Your task to perform on an android device: What's the weather going to be tomorrow? Image 0: 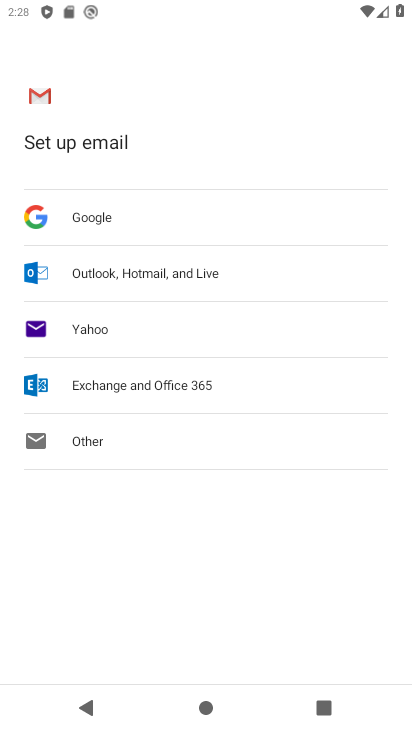
Step 0: press home button
Your task to perform on an android device: What's the weather going to be tomorrow? Image 1: 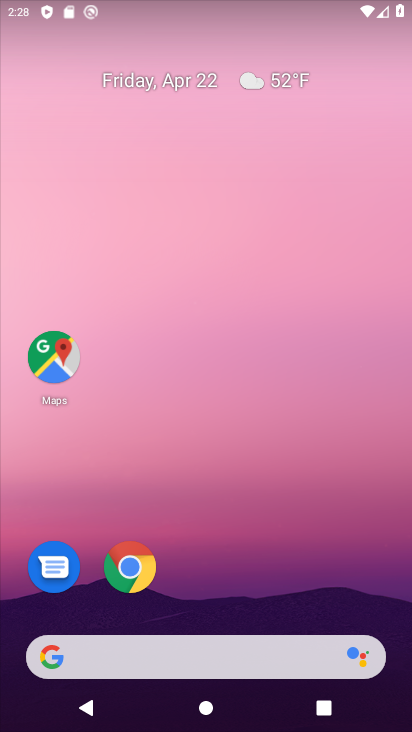
Step 1: drag from (229, 574) to (204, 723)
Your task to perform on an android device: What's the weather going to be tomorrow? Image 2: 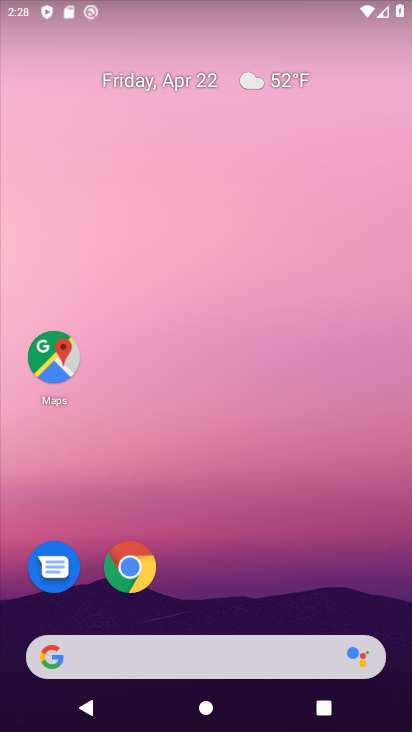
Step 2: click (271, 74)
Your task to perform on an android device: What's the weather going to be tomorrow? Image 3: 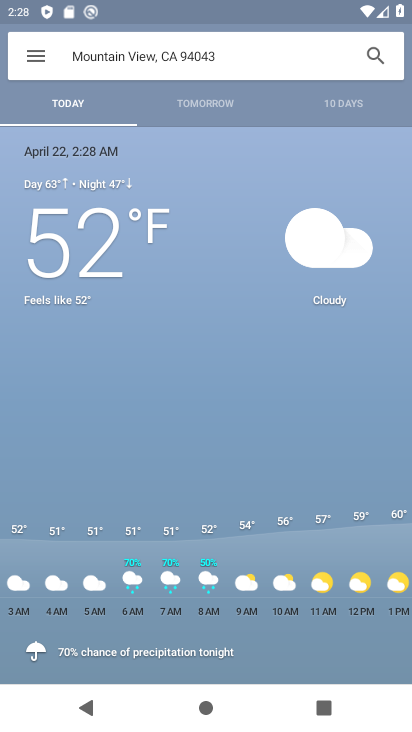
Step 3: click (195, 108)
Your task to perform on an android device: What's the weather going to be tomorrow? Image 4: 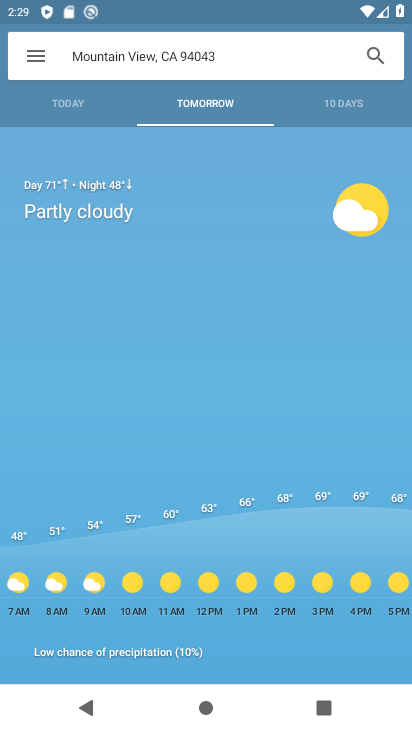
Step 4: task complete